Your task to perform on an android device: Turn off the flashlight Image 0: 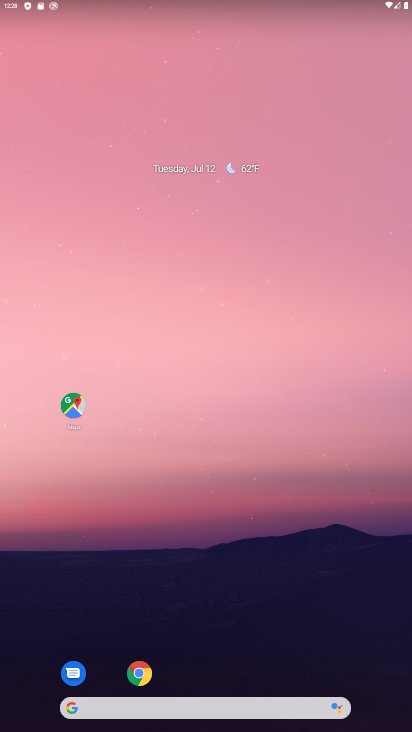
Step 0: drag from (206, 671) to (237, 45)
Your task to perform on an android device: Turn off the flashlight Image 1: 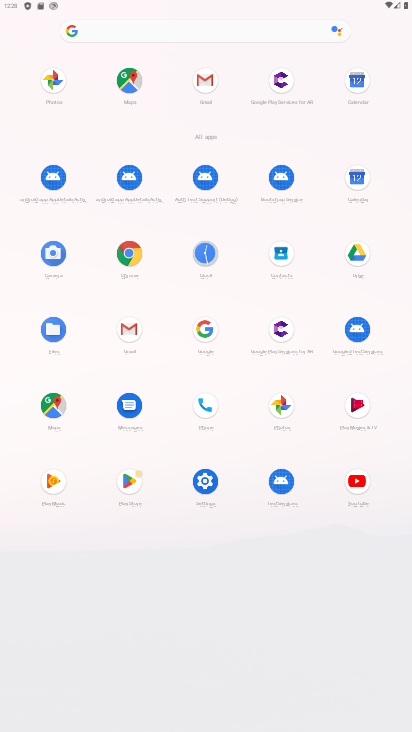
Step 1: click (205, 476)
Your task to perform on an android device: Turn off the flashlight Image 2: 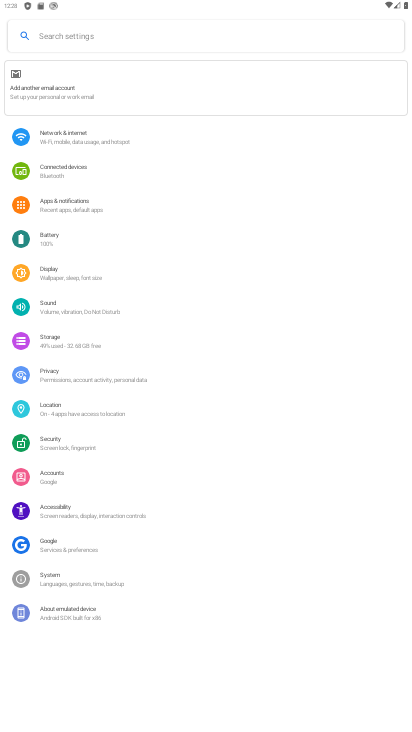
Step 2: click (60, 30)
Your task to perform on an android device: Turn off the flashlight Image 3: 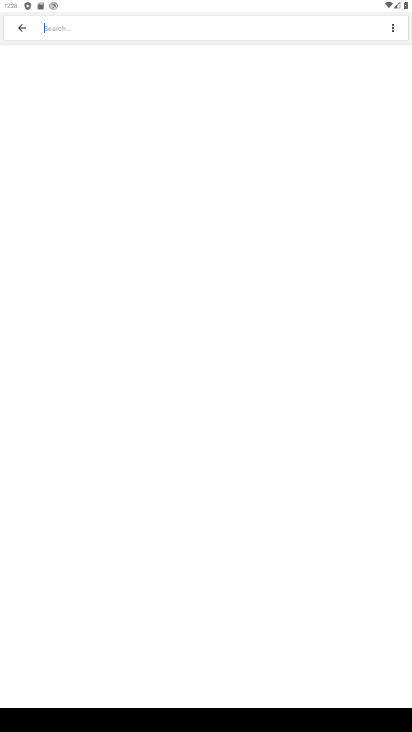
Step 3: type "flashlight"
Your task to perform on an android device: Turn off the flashlight Image 4: 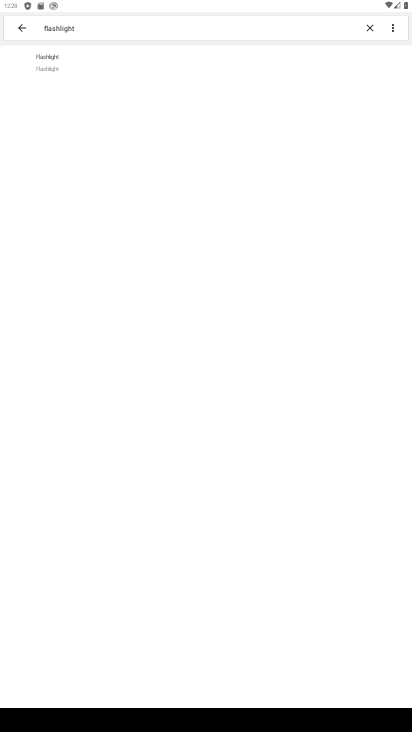
Step 4: click (63, 62)
Your task to perform on an android device: Turn off the flashlight Image 5: 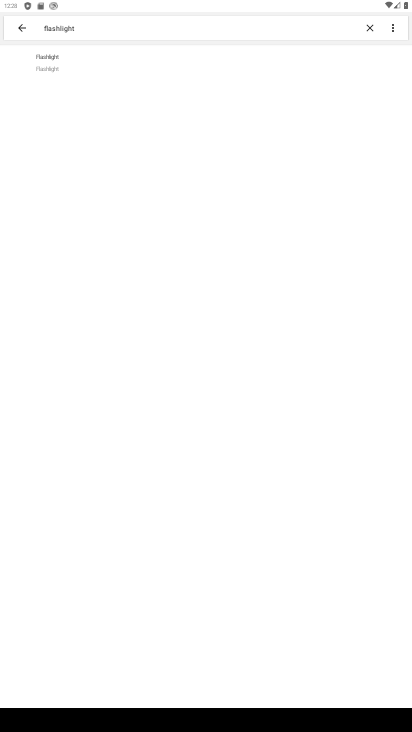
Step 5: click (63, 62)
Your task to perform on an android device: Turn off the flashlight Image 6: 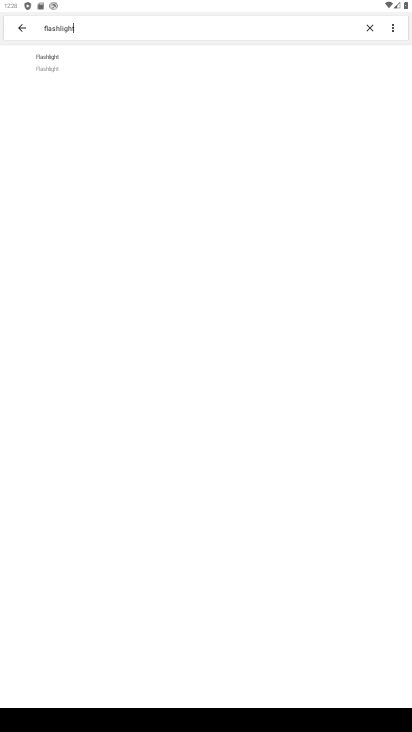
Step 6: task complete